Your task to perform on an android device: What is the speed of a cheetah? Image 0: 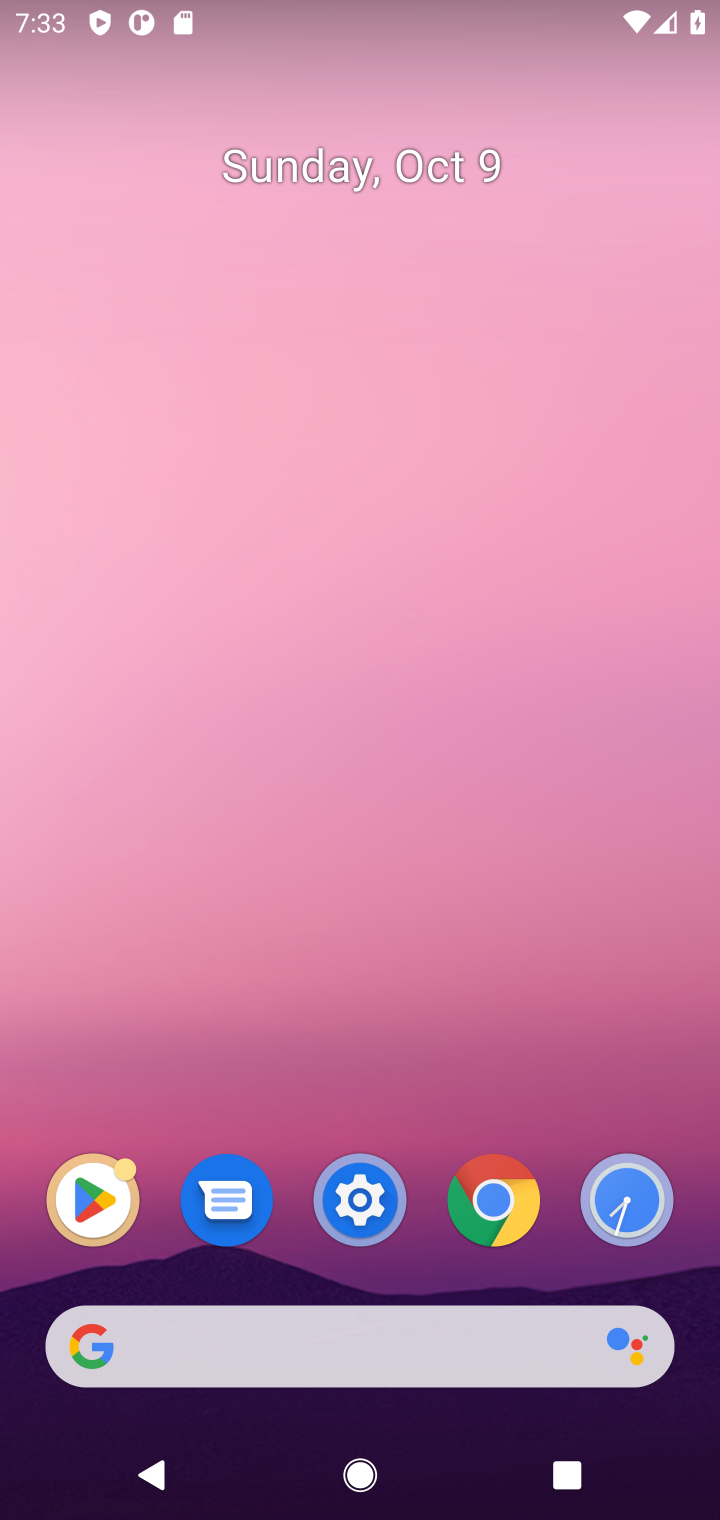
Step 0: click (499, 1203)
Your task to perform on an android device: What is the speed of a cheetah? Image 1: 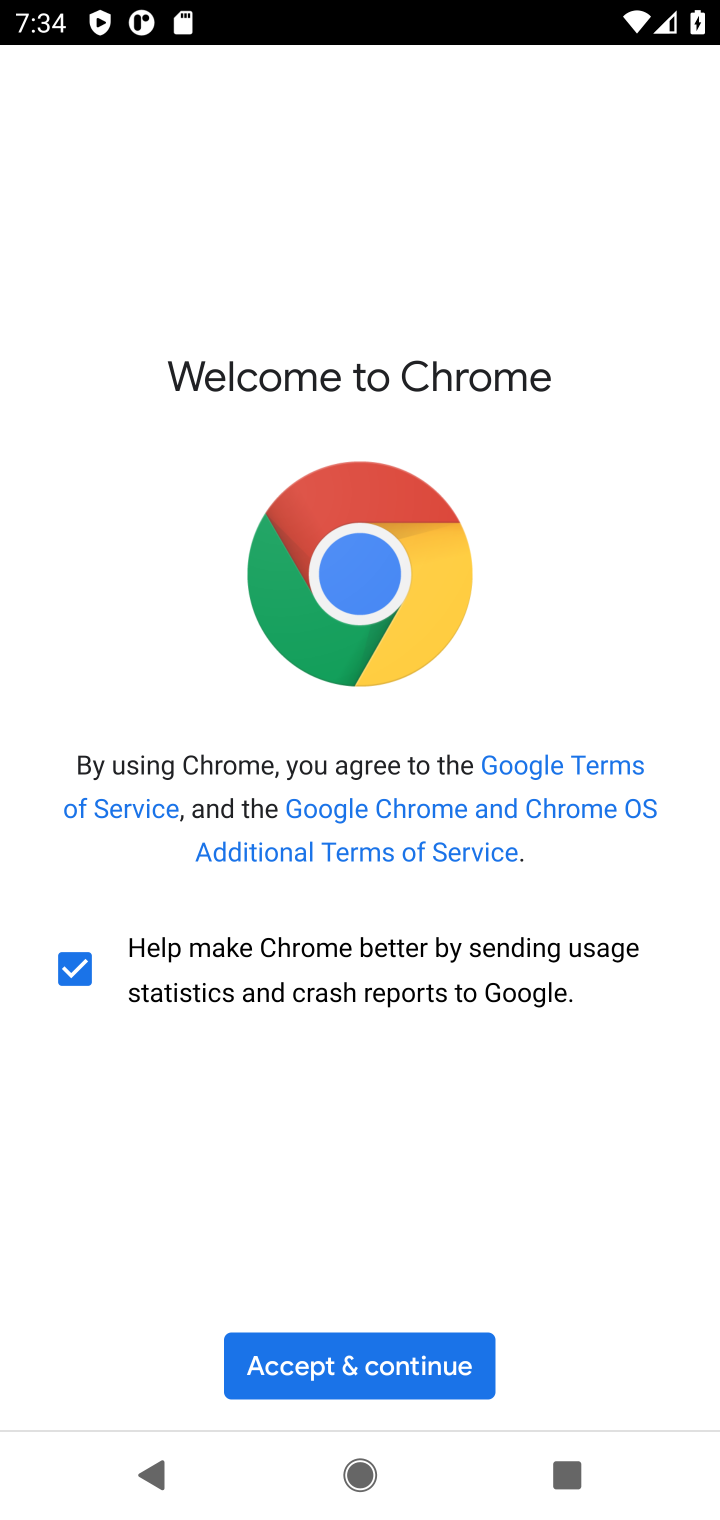
Step 1: click (341, 1368)
Your task to perform on an android device: What is the speed of a cheetah? Image 2: 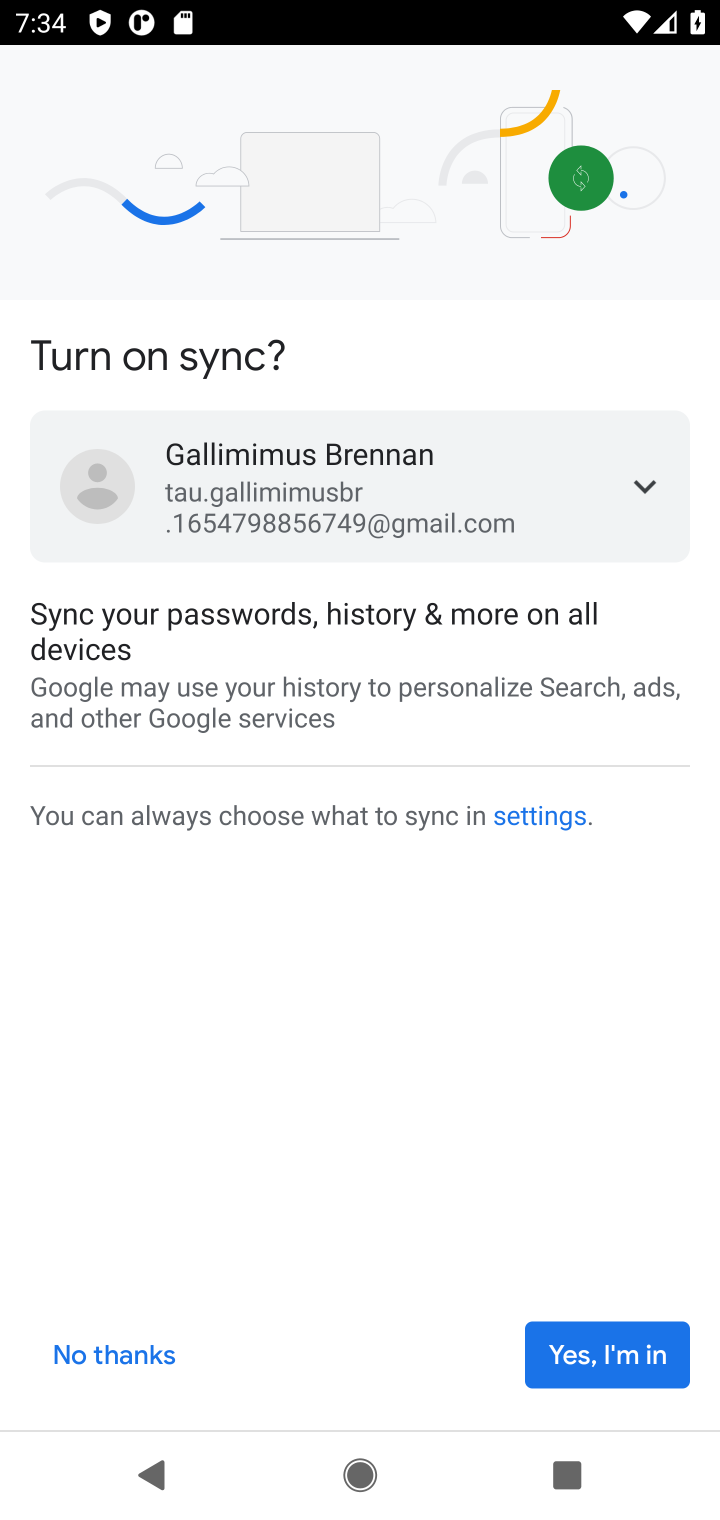
Step 2: click (122, 1364)
Your task to perform on an android device: What is the speed of a cheetah? Image 3: 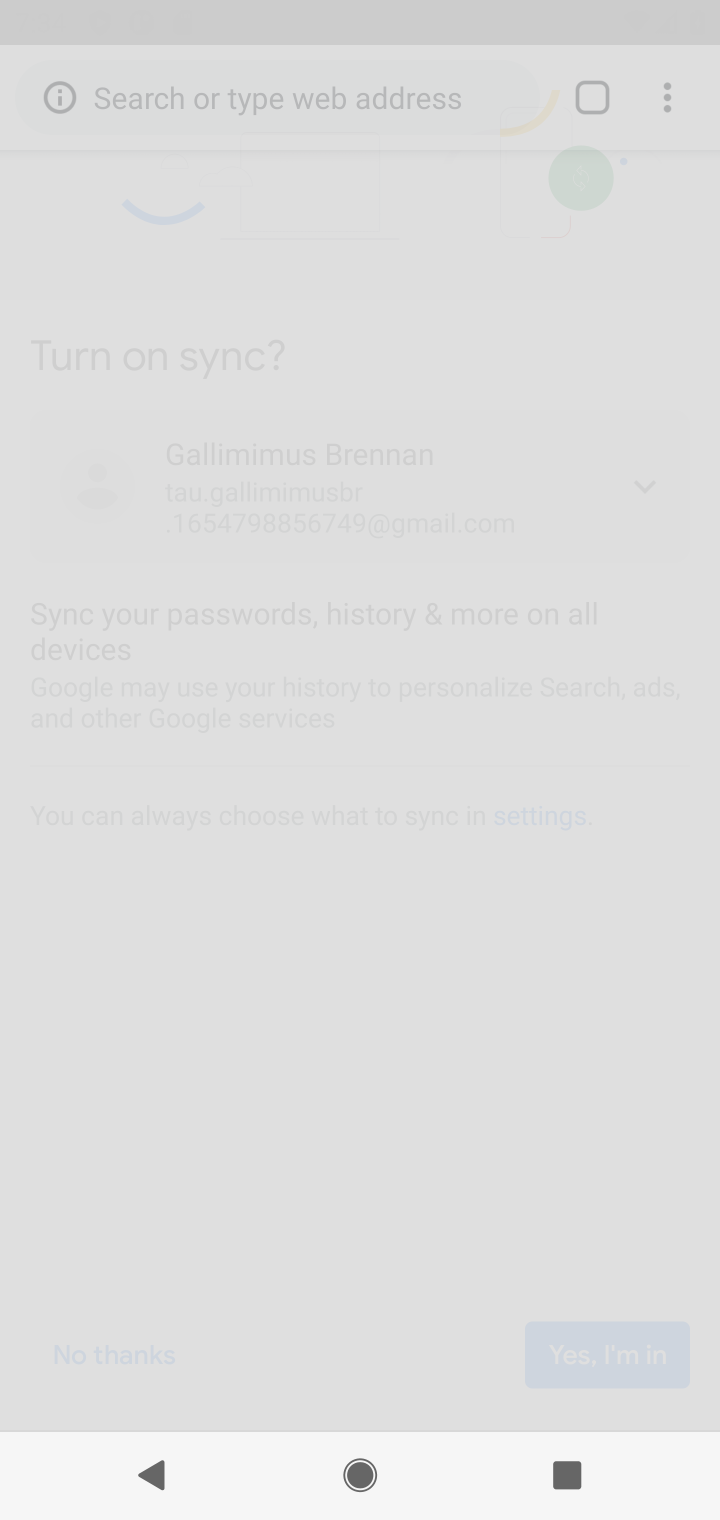
Step 3: click (143, 1350)
Your task to perform on an android device: What is the speed of a cheetah? Image 4: 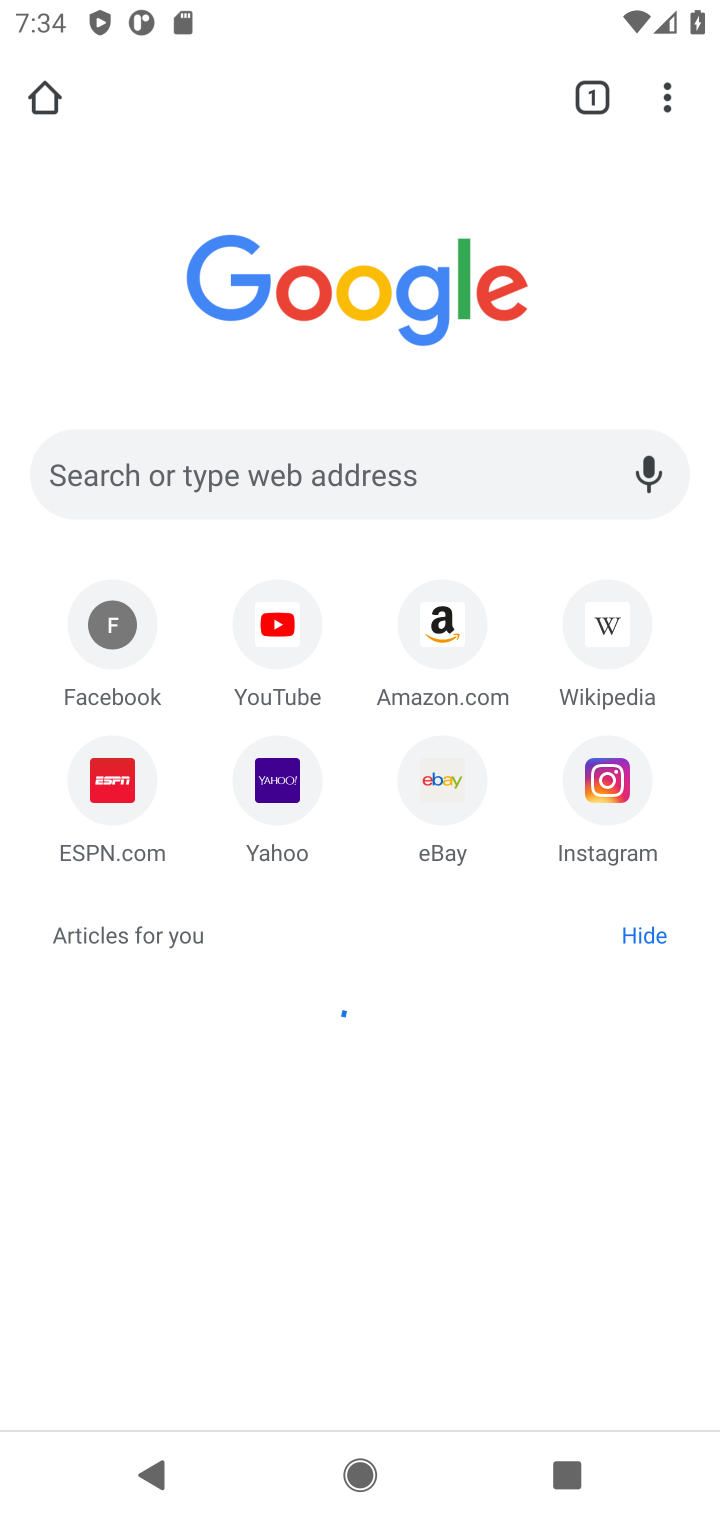
Step 4: click (405, 475)
Your task to perform on an android device: What is the speed of a cheetah? Image 5: 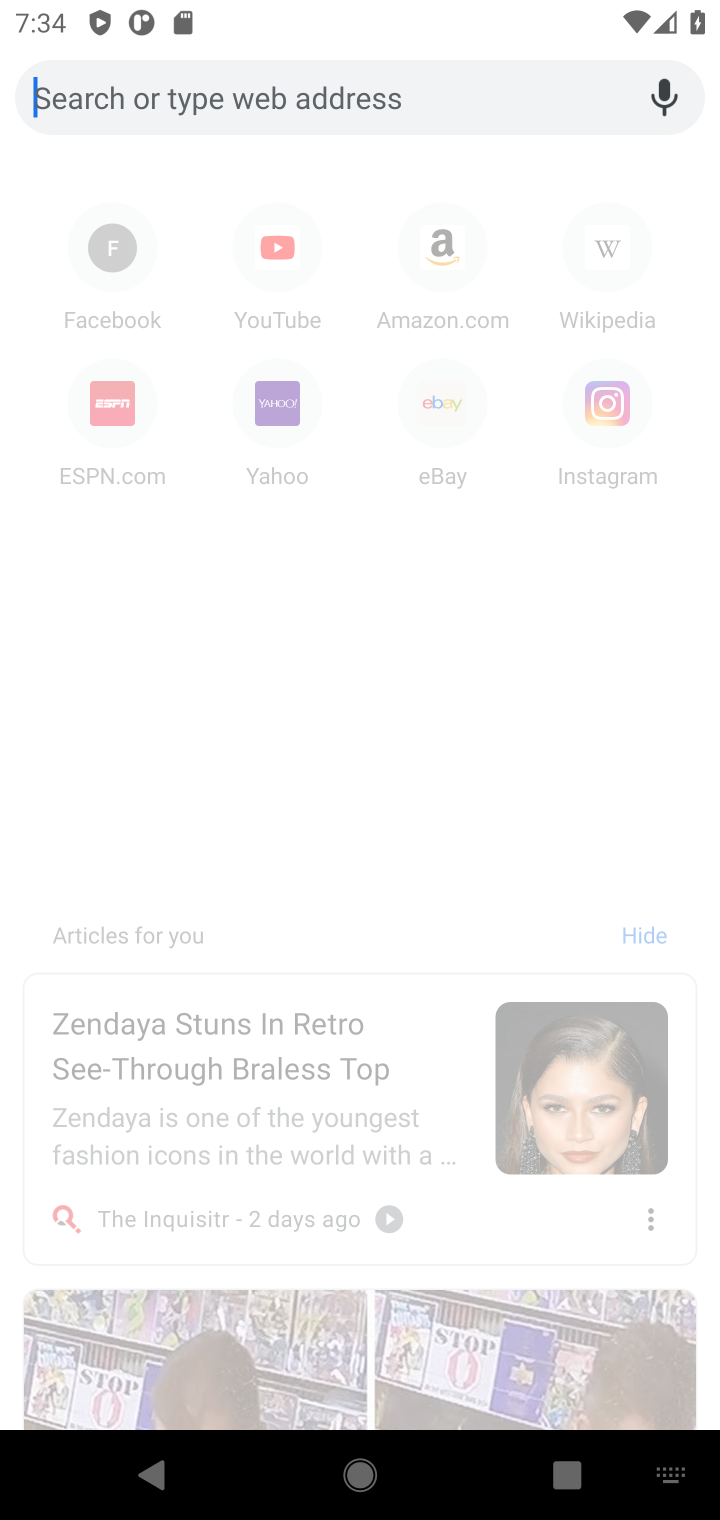
Step 5: type "speed of a cheetah"
Your task to perform on an android device: What is the speed of a cheetah? Image 6: 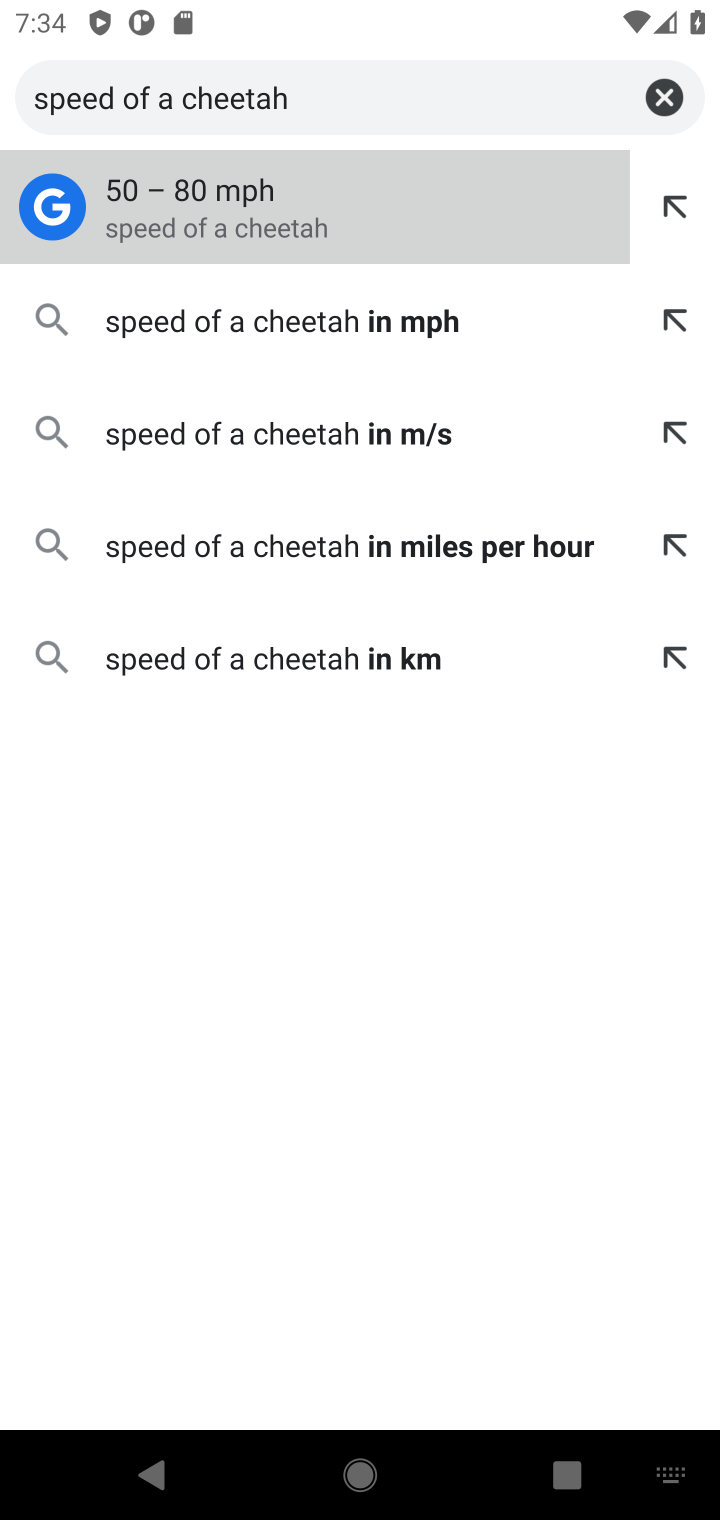
Step 6: click (366, 226)
Your task to perform on an android device: What is the speed of a cheetah? Image 7: 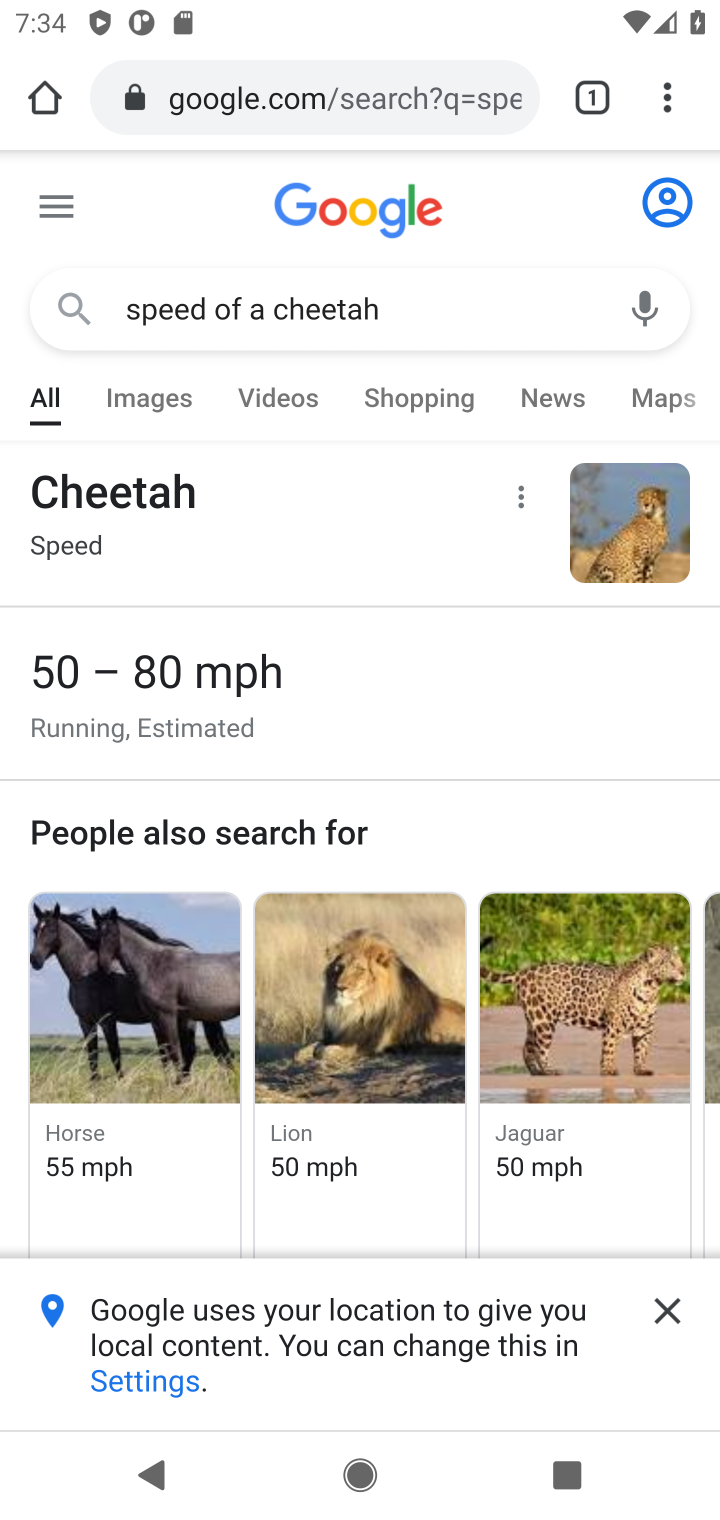
Step 7: task complete